Your task to perform on an android device: When is my next appointment? Image 0: 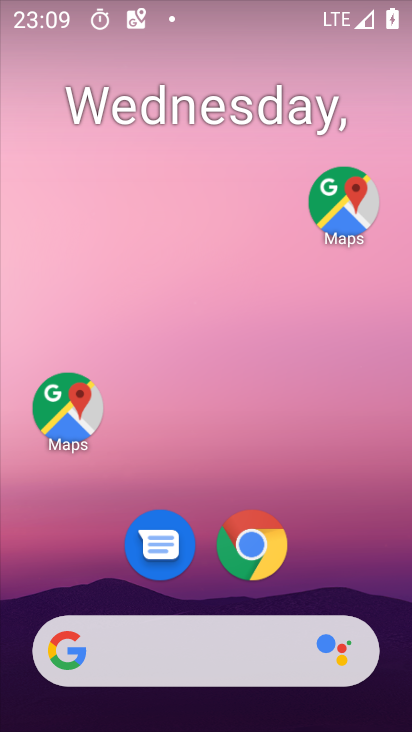
Step 0: drag from (313, 589) to (235, 53)
Your task to perform on an android device: When is my next appointment? Image 1: 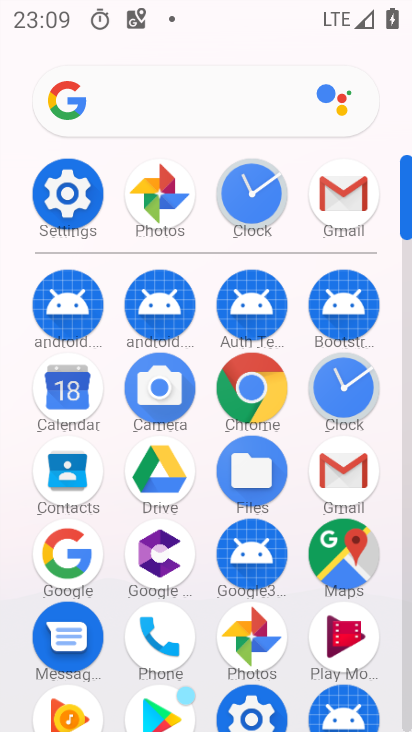
Step 1: click (63, 399)
Your task to perform on an android device: When is my next appointment? Image 2: 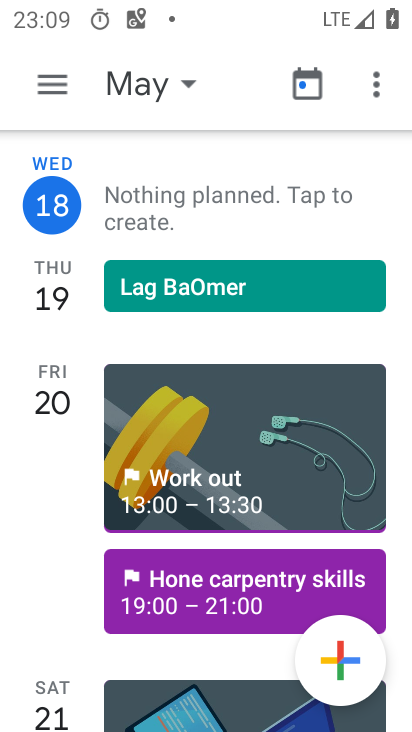
Step 2: click (167, 88)
Your task to perform on an android device: When is my next appointment? Image 3: 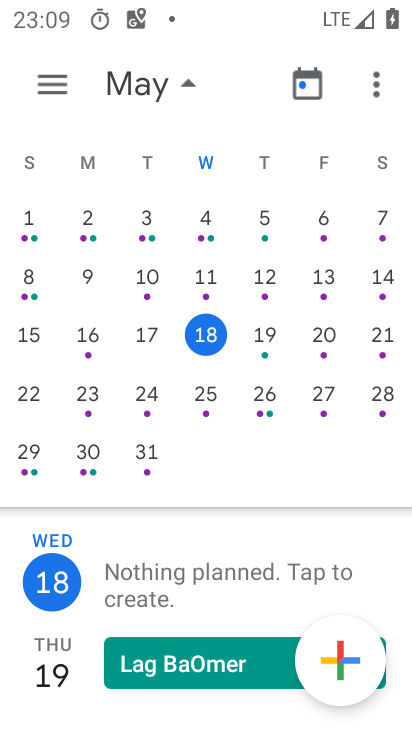
Step 3: click (208, 342)
Your task to perform on an android device: When is my next appointment? Image 4: 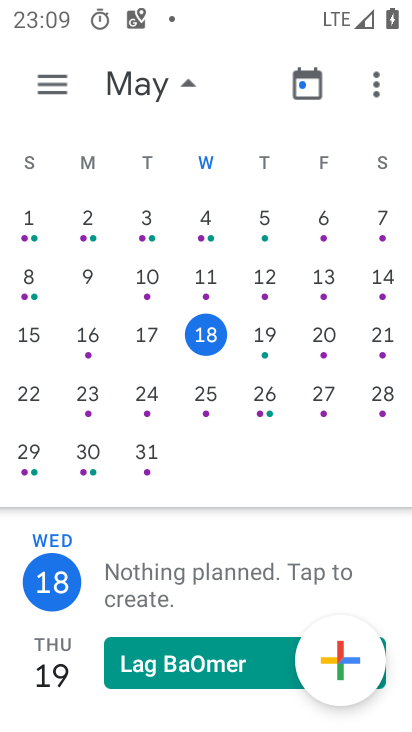
Step 4: task complete